Your task to perform on an android device: Go to ESPN.com Image 0: 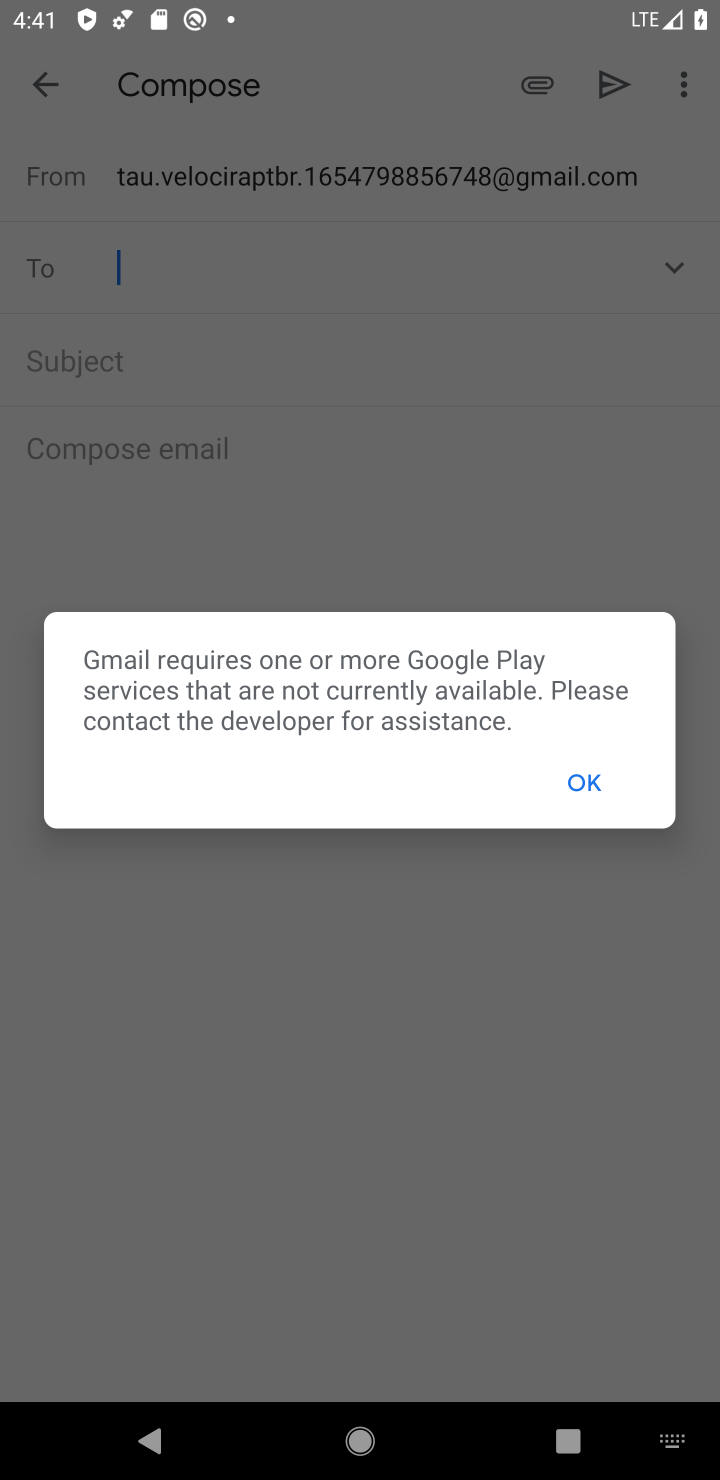
Step 0: press back button
Your task to perform on an android device: Go to ESPN.com Image 1: 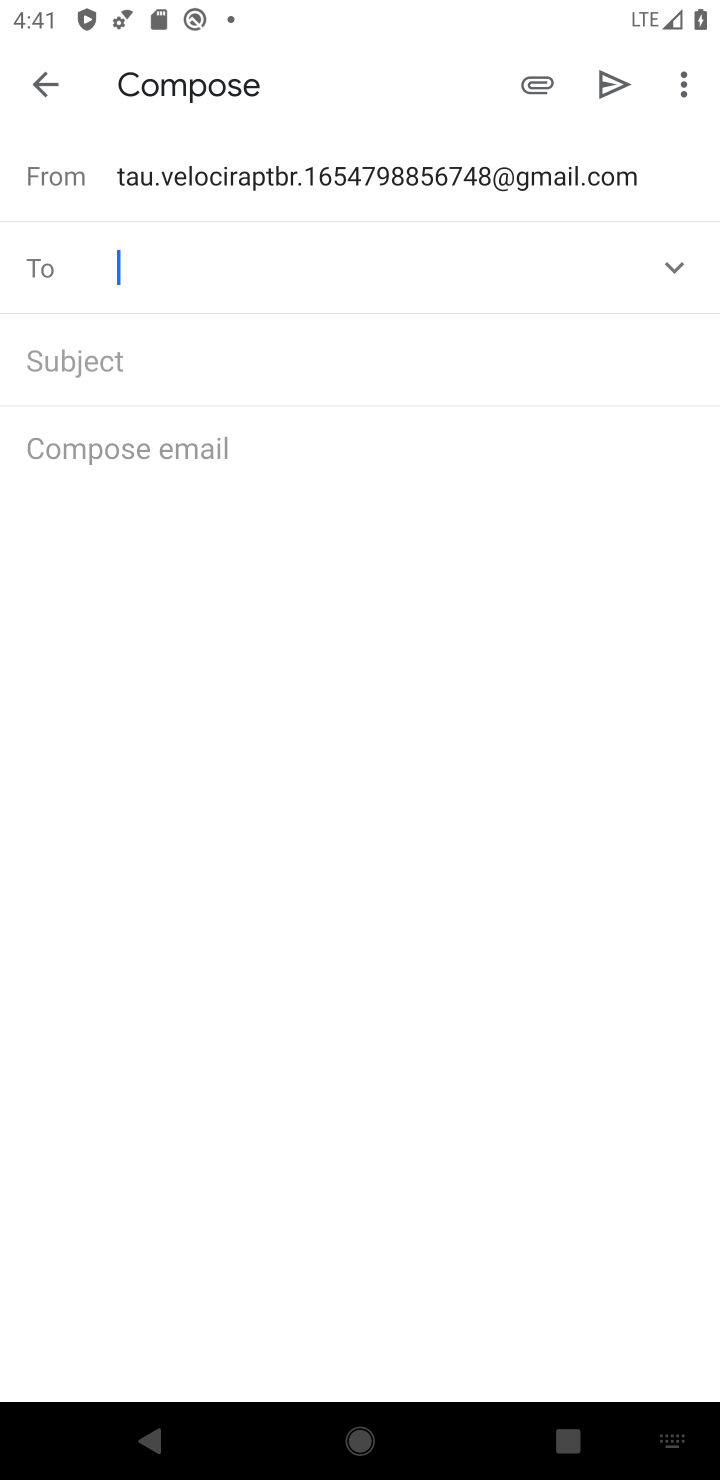
Step 1: click (585, 787)
Your task to perform on an android device: Go to ESPN.com Image 2: 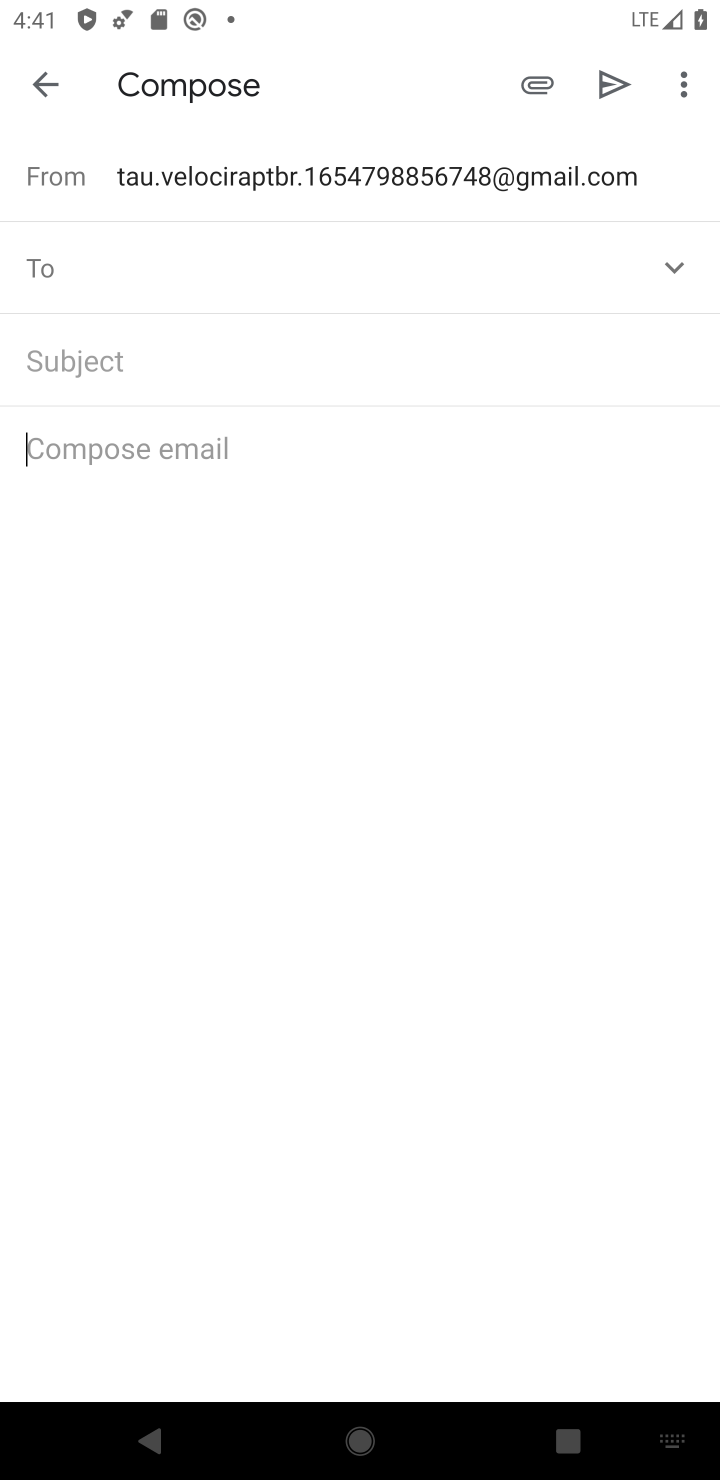
Step 2: press home button
Your task to perform on an android device: Go to ESPN.com Image 3: 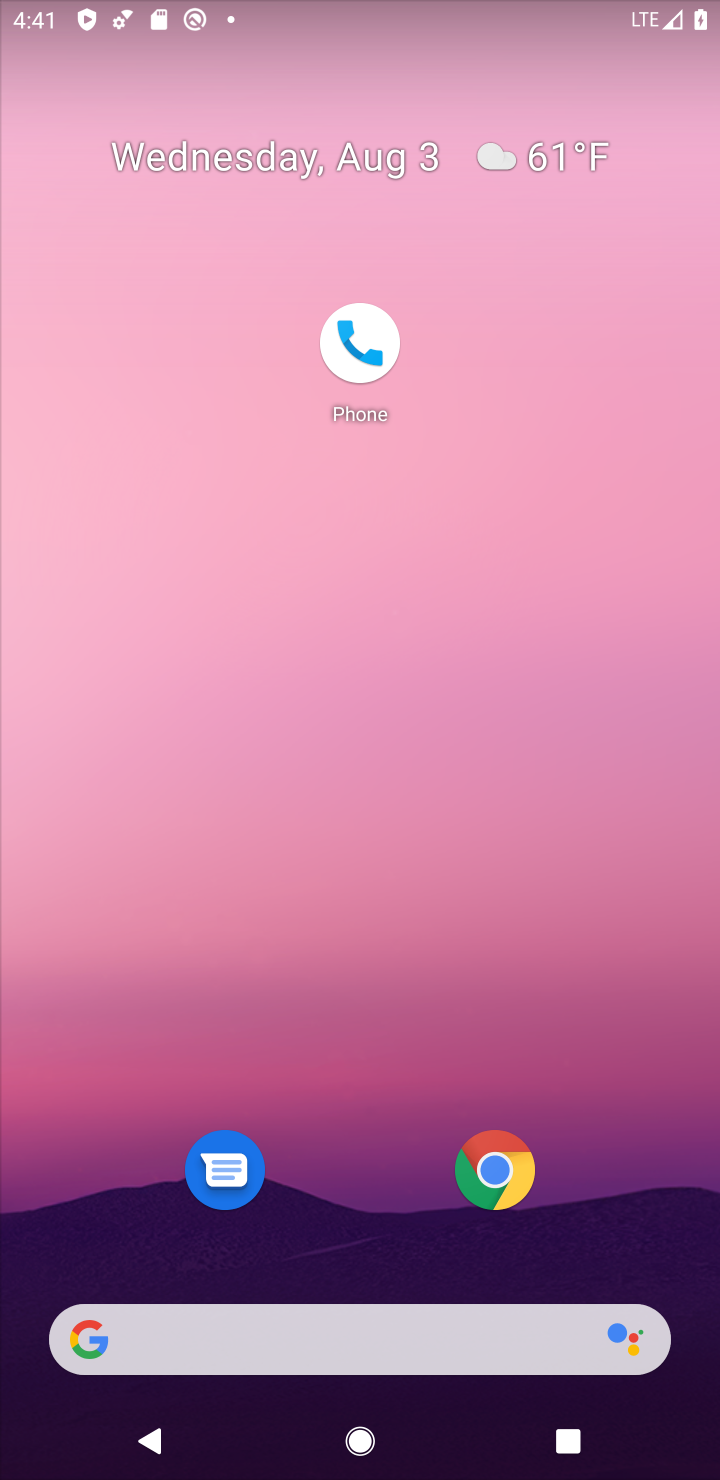
Step 3: click (503, 1176)
Your task to perform on an android device: Go to ESPN.com Image 4: 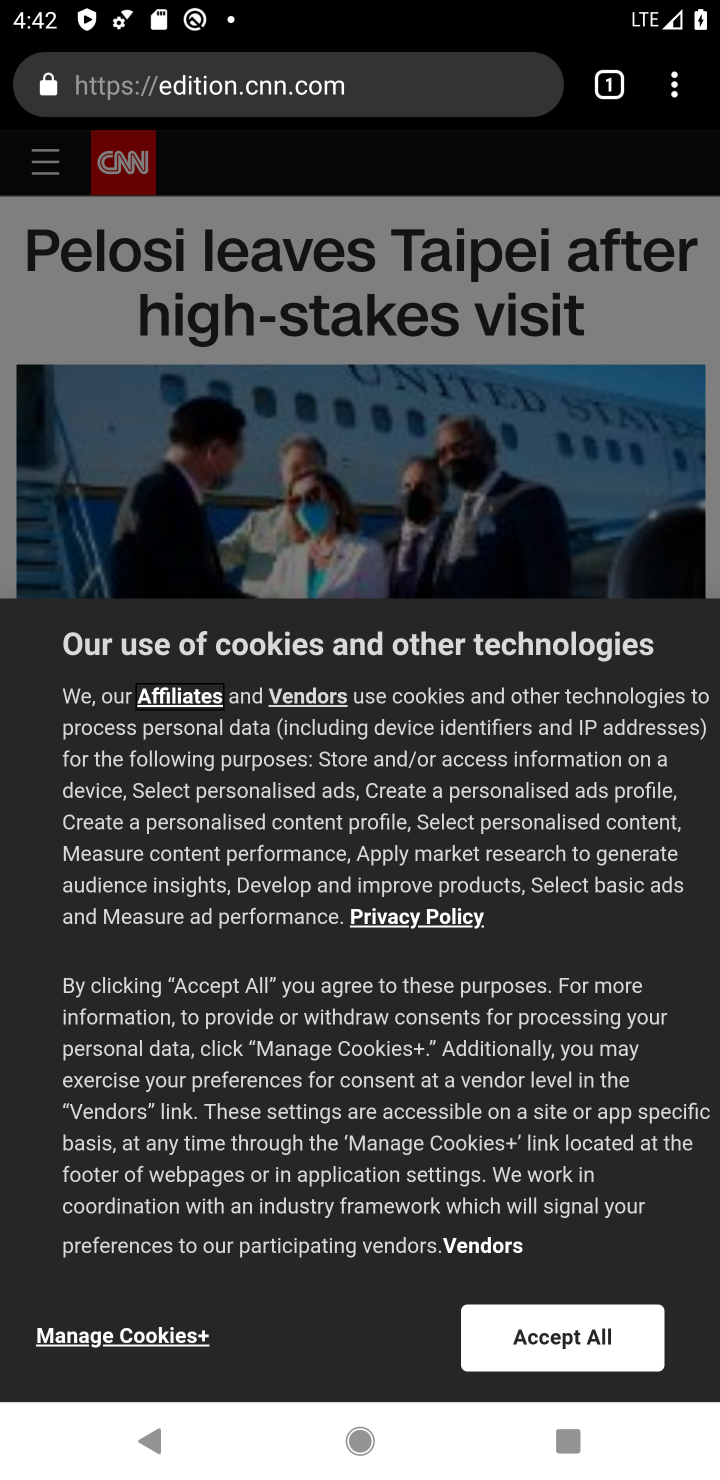
Step 4: task complete